Your task to perform on an android device: Open calendar and show me the fourth week of next month Image 0: 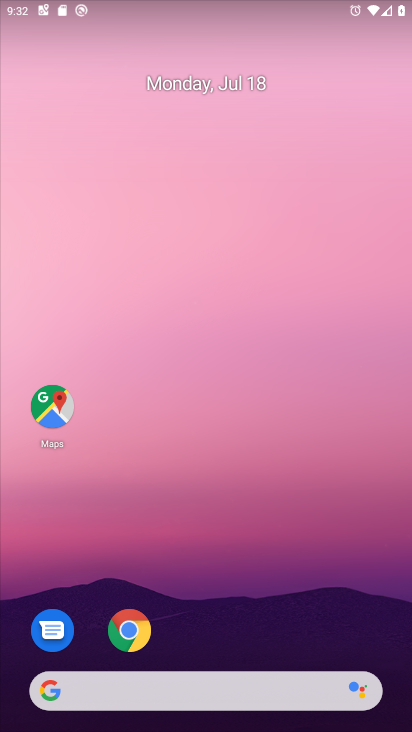
Step 0: drag from (197, 624) to (200, 110)
Your task to perform on an android device: Open calendar and show me the fourth week of next month Image 1: 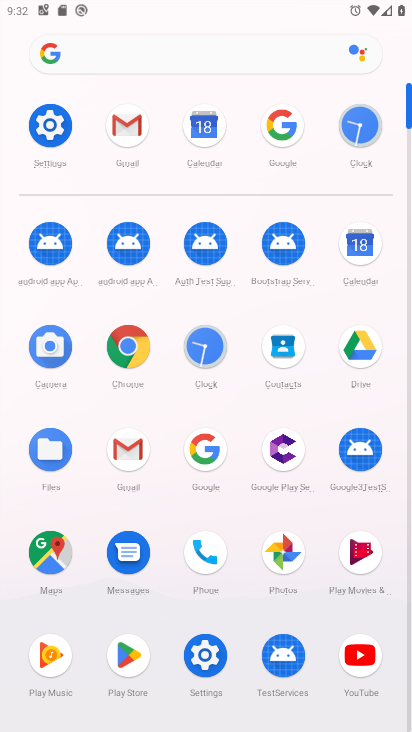
Step 1: click (358, 236)
Your task to perform on an android device: Open calendar and show me the fourth week of next month Image 2: 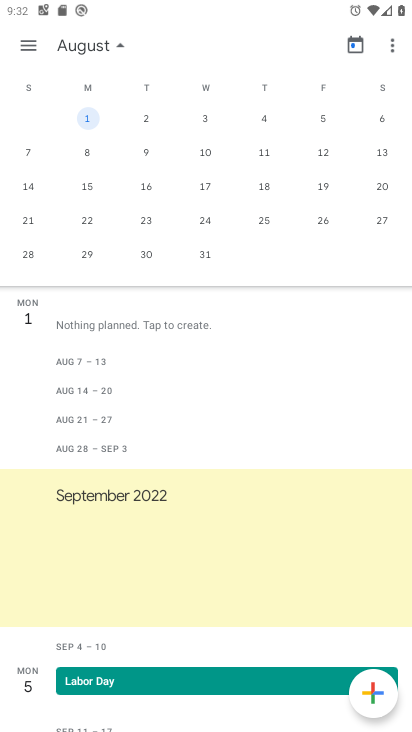
Step 2: click (33, 214)
Your task to perform on an android device: Open calendar and show me the fourth week of next month Image 3: 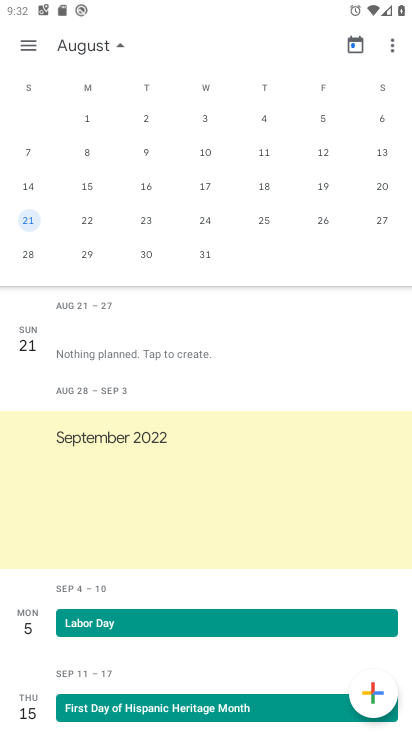
Step 3: task complete